Your task to perform on an android device: turn off notifications in google photos Image 0: 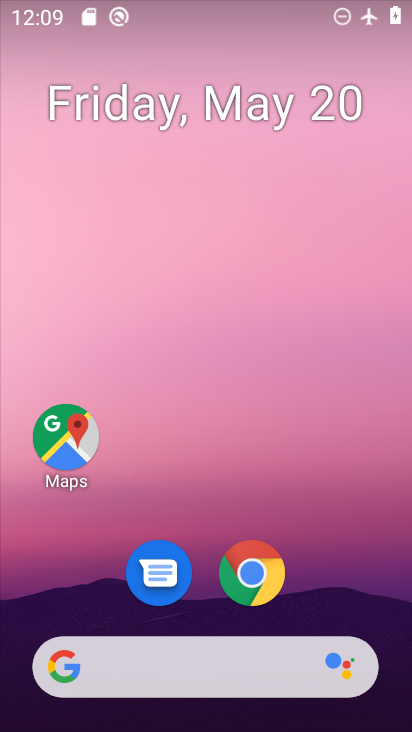
Step 0: drag from (201, 727) to (201, 80)
Your task to perform on an android device: turn off notifications in google photos Image 1: 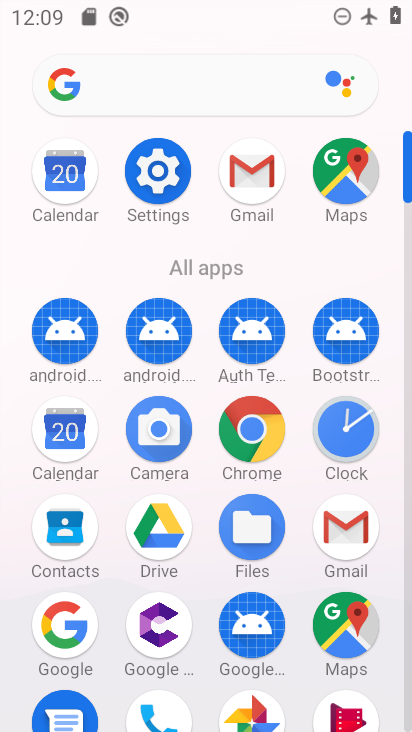
Step 1: click (253, 709)
Your task to perform on an android device: turn off notifications in google photos Image 2: 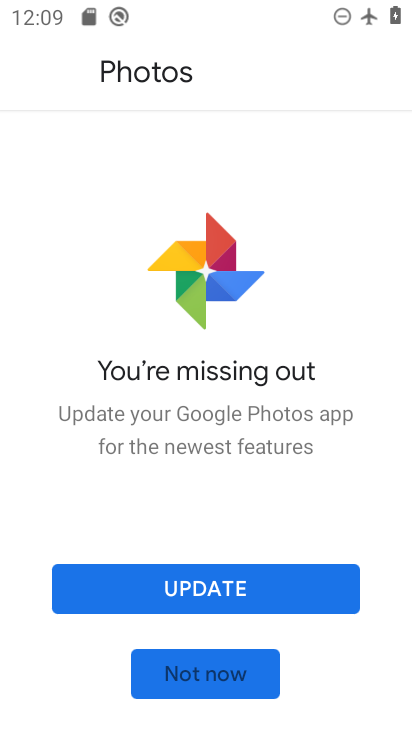
Step 2: click (214, 581)
Your task to perform on an android device: turn off notifications in google photos Image 3: 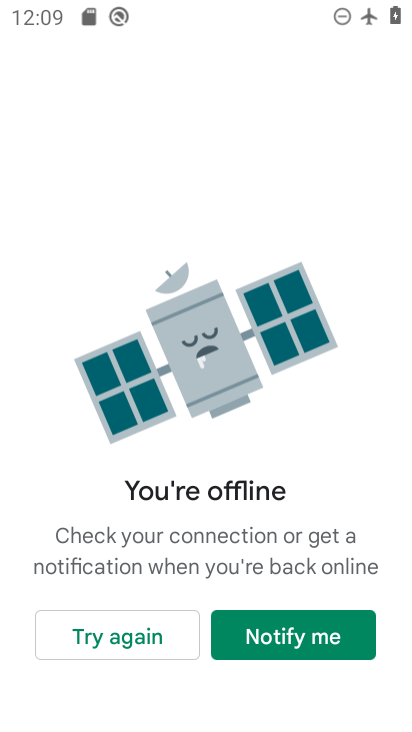
Step 3: task complete